Your task to perform on an android device: Go to eBay Image 0: 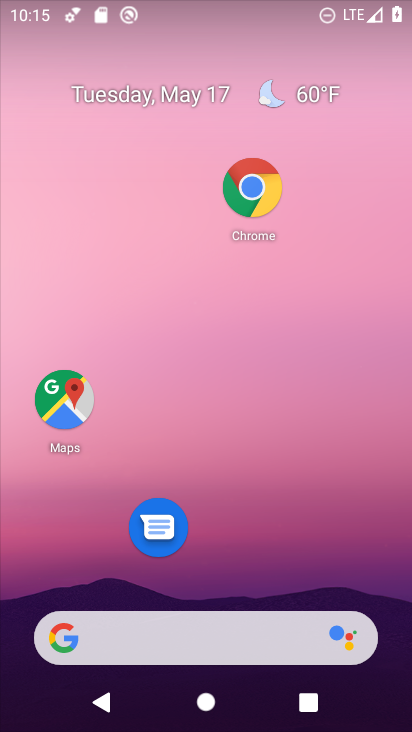
Step 0: drag from (324, 528) to (333, 52)
Your task to perform on an android device: Go to eBay Image 1: 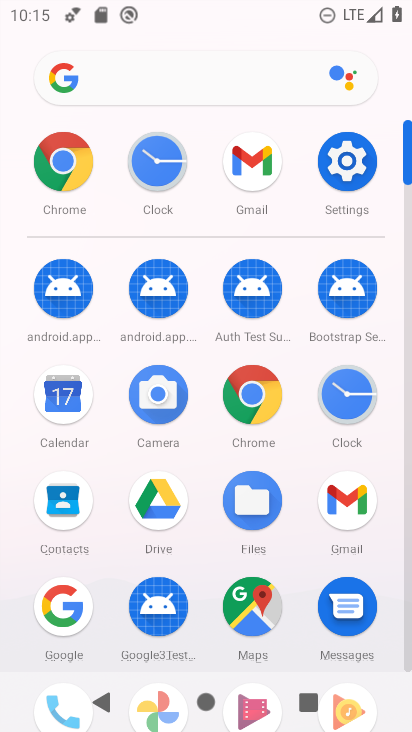
Step 1: click (67, 146)
Your task to perform on an android device: Go to eBay Image 2: 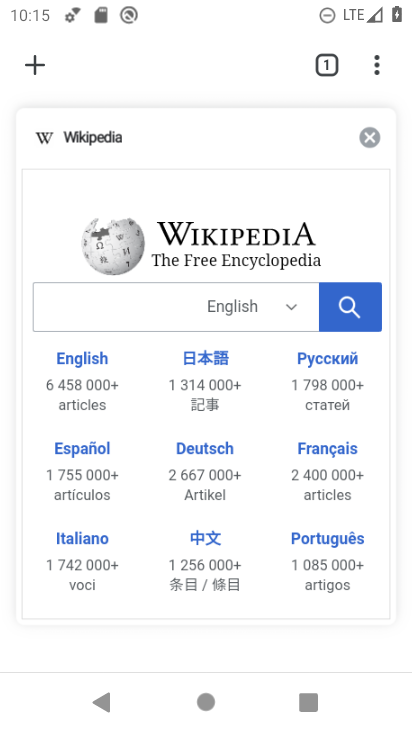
Step 2: click (27, 68)
Your task to perform on an android device: Go to eBay Image 3: 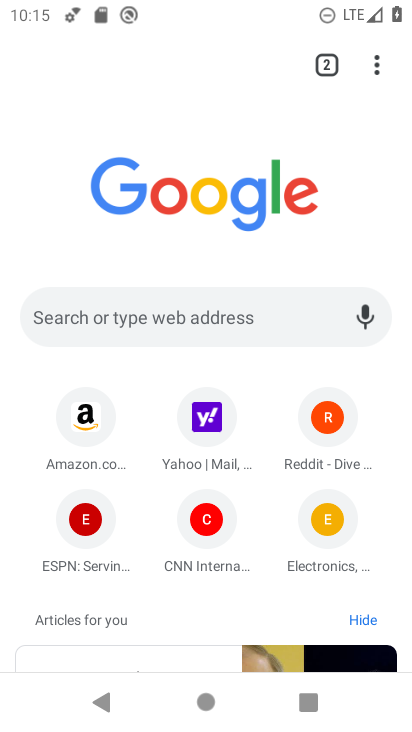
Step 3: click (201, 321)
Your task to perform on an android device: Go to eBay Image 4: 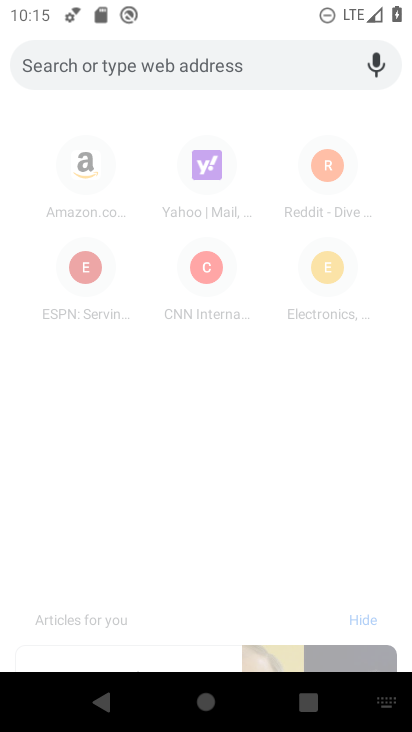
Step 4: type "ebay.com"
Your task to perform on an android device: Go to eBay Image 5: 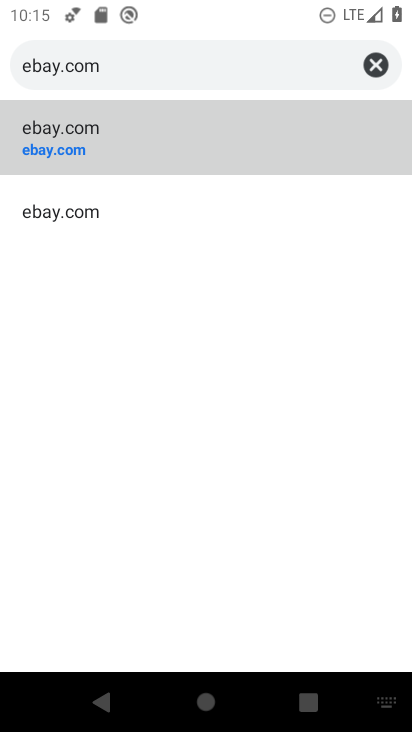
Step 5: click (56, 142)
Your task to perform on an android device: Go to eBay Image 6: 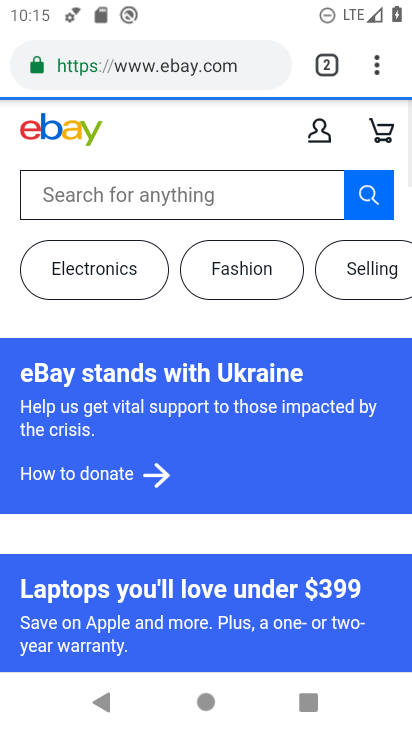
Step 6: task complete